Your task to perform on an android device: turn on priority inbox in the gmail app Image 0: 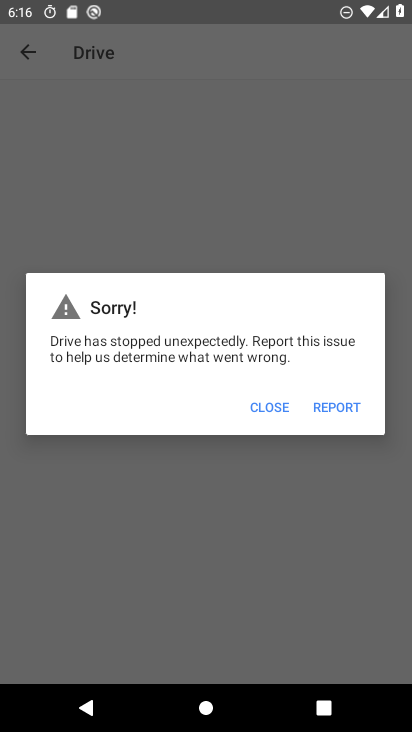
Step 0: press home button
Your task to perform on an android device: turn on priority inbox in the gmail app Image 1: 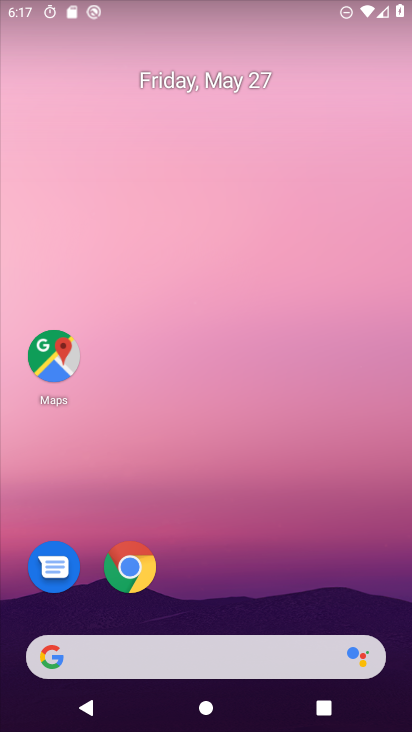
Step 1: drag from (225, 598) to (91, 5)
Your task to perform on an android device: turn on priority inbox in the gmail app Image 2: 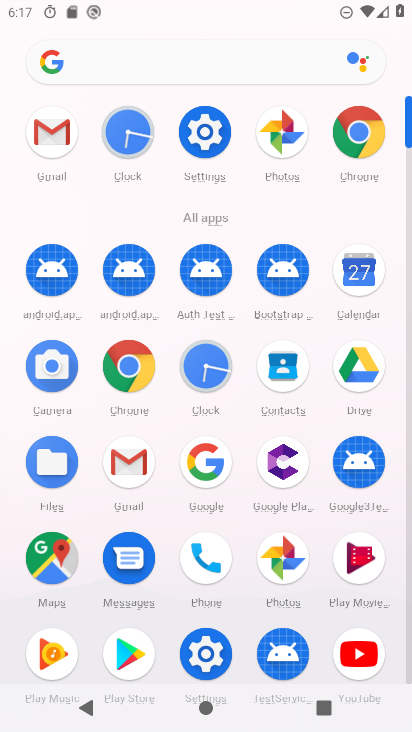
Step 2: click (46, 149)
Your task to perform on an android device: turn on priority inbox in the gmail app Image 3: 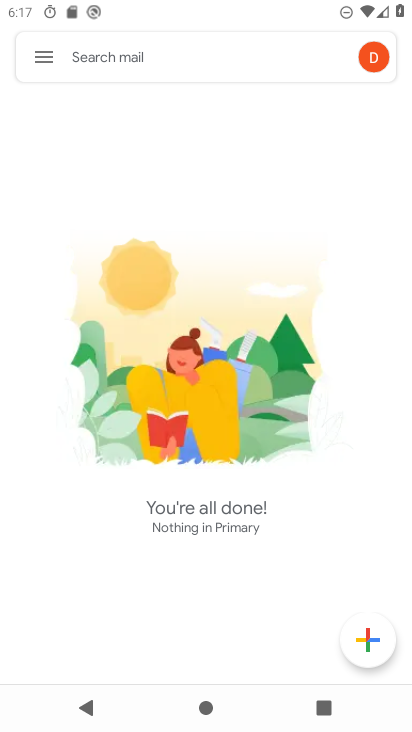
Step 3: click (43, 53)
Your task to perform on an android device: turn on priority inbox in the gmail app Image 4: 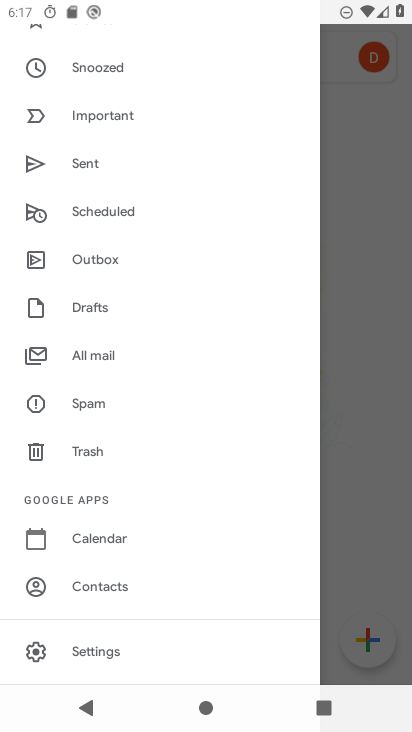
Step 4: click (102, 652)
Your task to perform on an android device: turn on priority inbox in the gmail app Image 5: 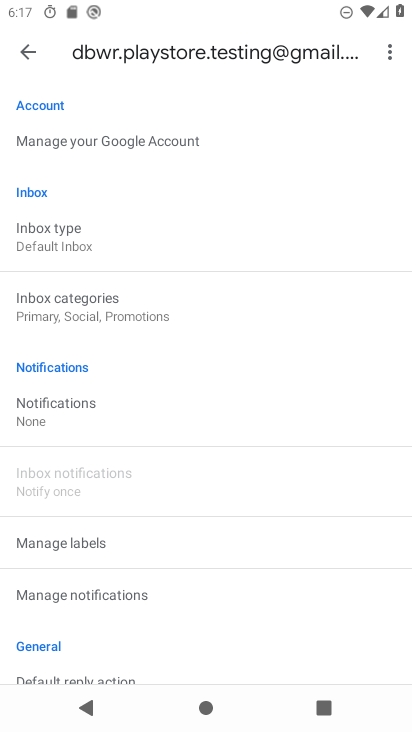
Step 5: drag from (115, 597) to (176, 32)
Your task to perform on an android device: turn on priority inbox in the gmail app Image 6: 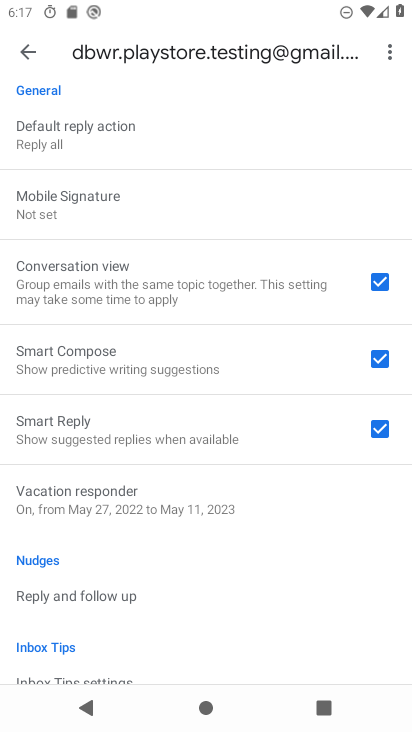
Step 6: drag from (143, 615) to (139, 211)
Your task to perform on an android device: turn on priority inbox in the gmail app Image 7: 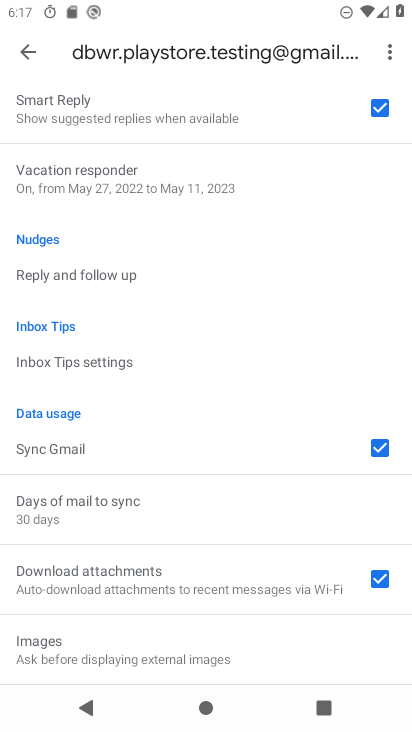
Step 7: drag from (128, 264) to (133, 712)
Your task to perform on an android device: turn on priority inbox in the gmail app Image 8: 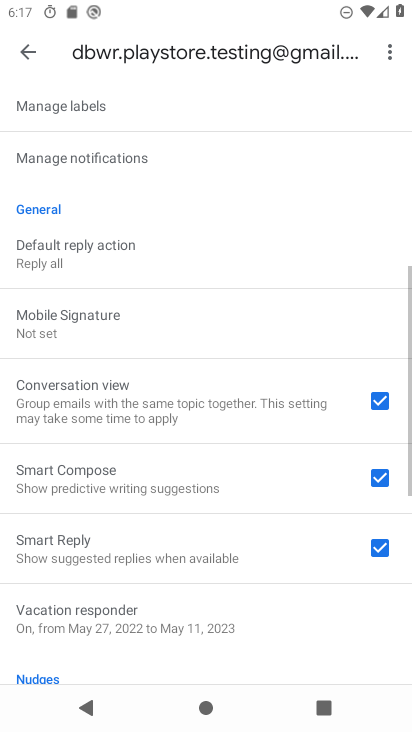
Step 8: drag from (140, 265) to (100, 725)
Your task to perform on an android device: turn on priority inbox in the gmail app Image 9: 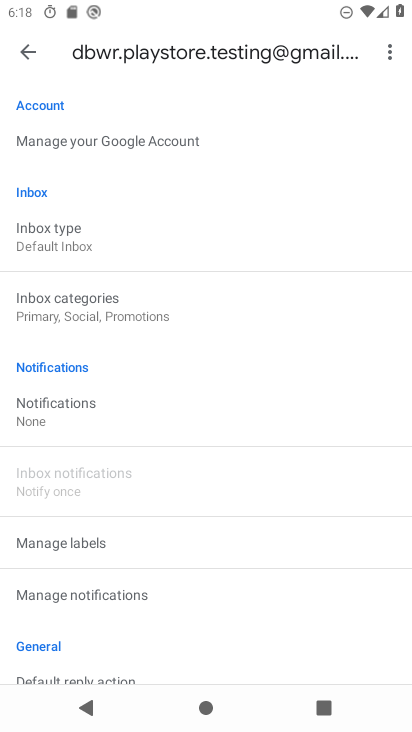
Step 9: click (33, 234)
Your task to perform on an android device: turn on priority inbox in the gmail app Image 10: 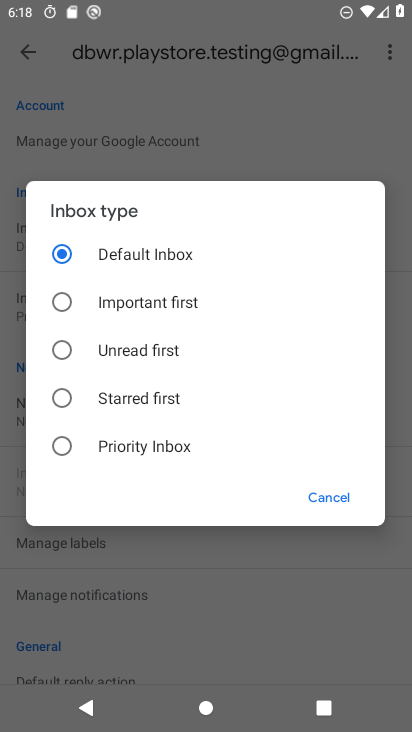
Step 10: click (71, 453)
Your task to perform on an android device: turn on priority inbox in the gmail app Image 11: 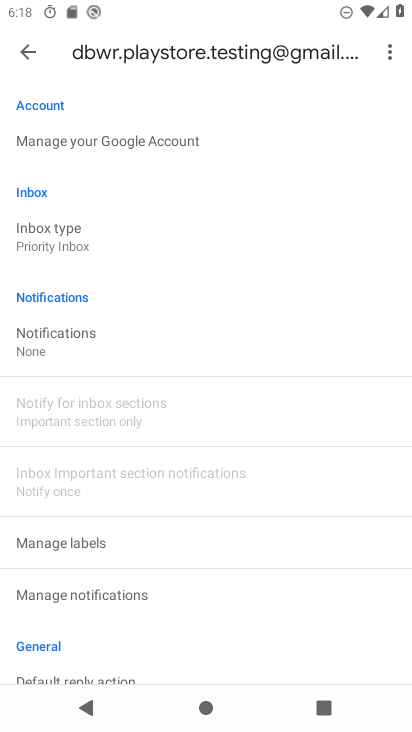
Step 11: task complete